Your task to perform on an android device: Is it going to rain tomorrow? Image 0: 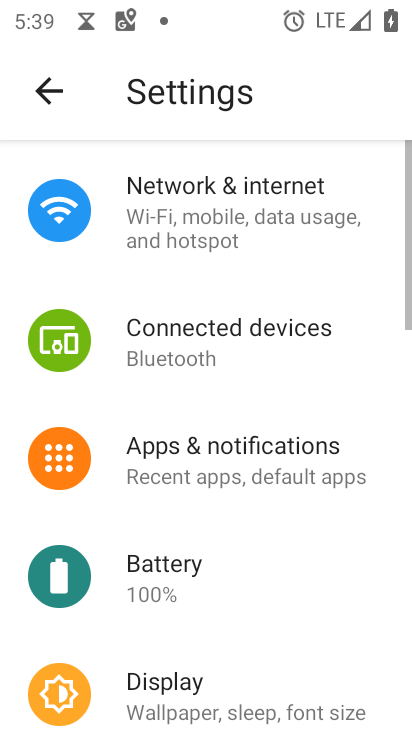
Step 0: press home button
Your task to perform on an android device: Is it going to rain tomorrow? Image 1: 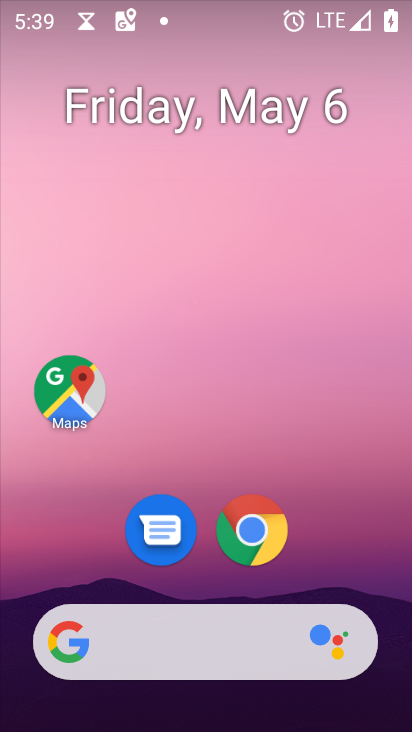
Step 1: click (207, 635)
Your task to perform on an android device: Is it going to rain tomorrow? Image 2: 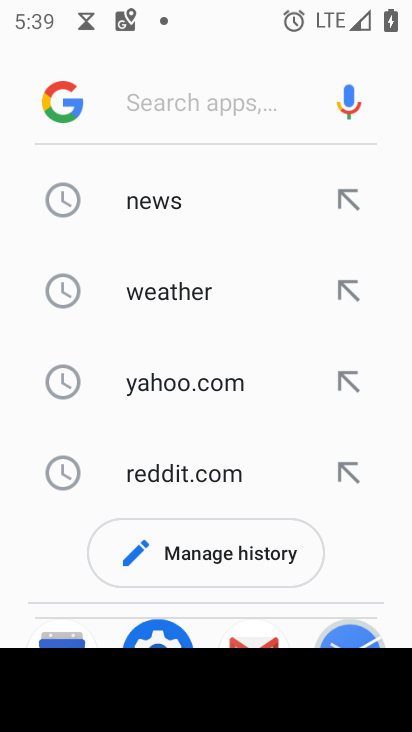
Step 2: type "is it going to rain tomorrow?"
Your task to perform on an android device: Is it going to rain tomorrow? Image 3: 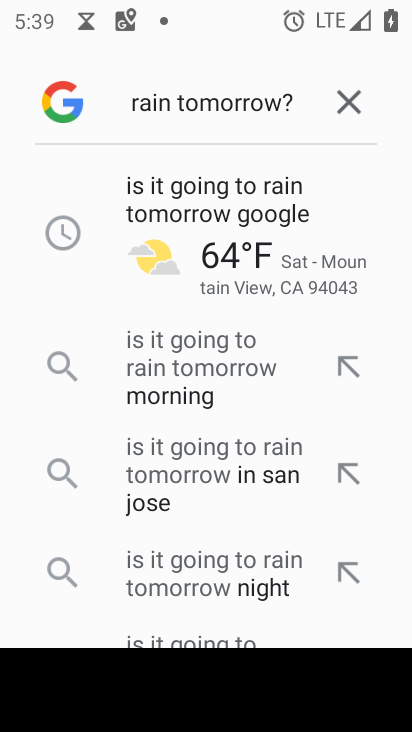
Step 3: click (186, 206)
Your task to perform on an android device: Is it going to rain tomorrow? Image 4: 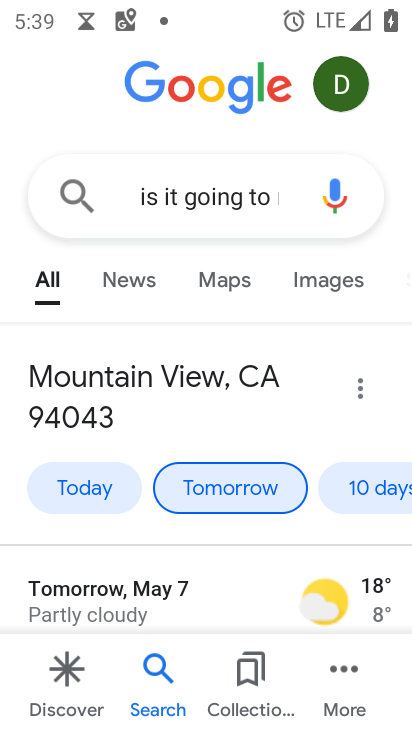
Step 4: task complete